Your task to perform on an android device: turn on the 12-hour format for clock Image 0: 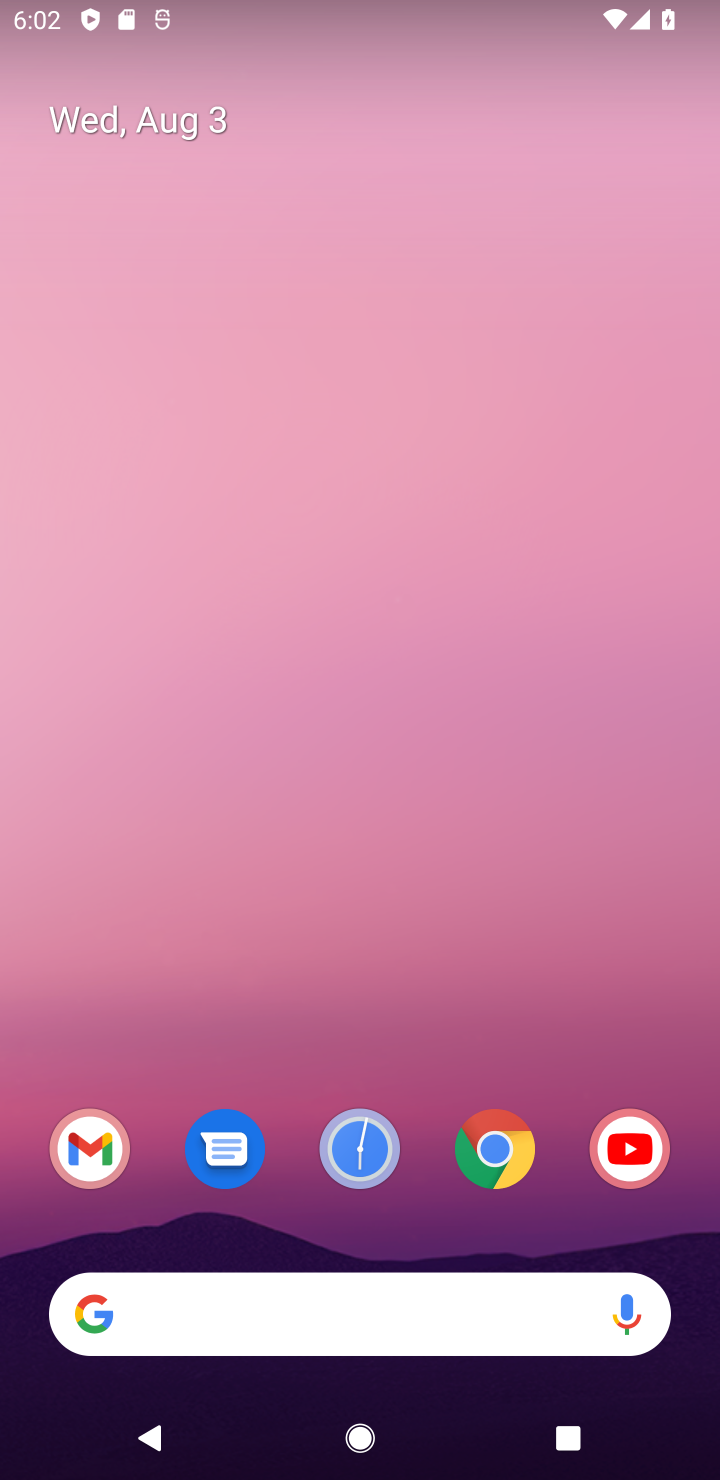
Step 0: drag from (388, 1349) to (348, 418)
Your task to perform on an android device: turn on the 12-hour format for clock Image 1: 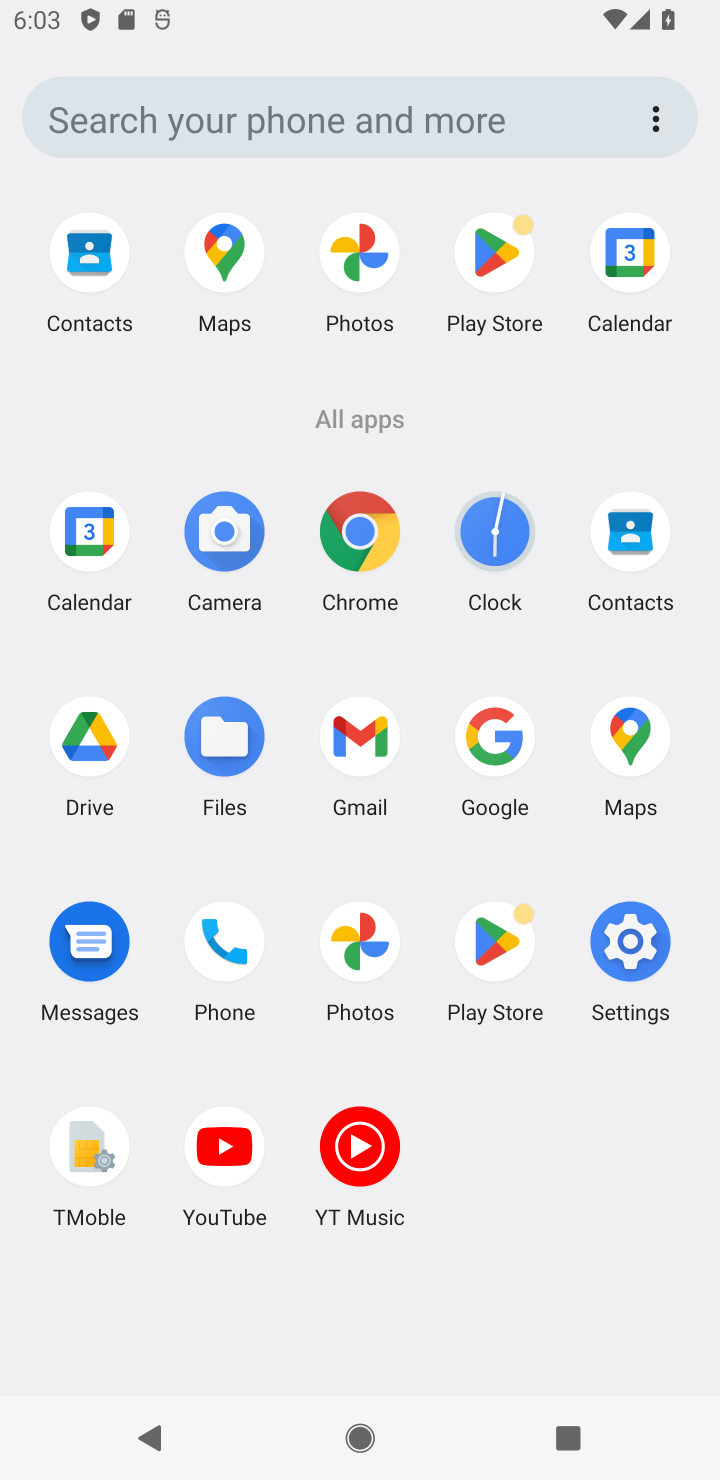
Step 1: click (590, 966)
Your task to perform on an android device: turn on the 12-hour format for clock Image 2: 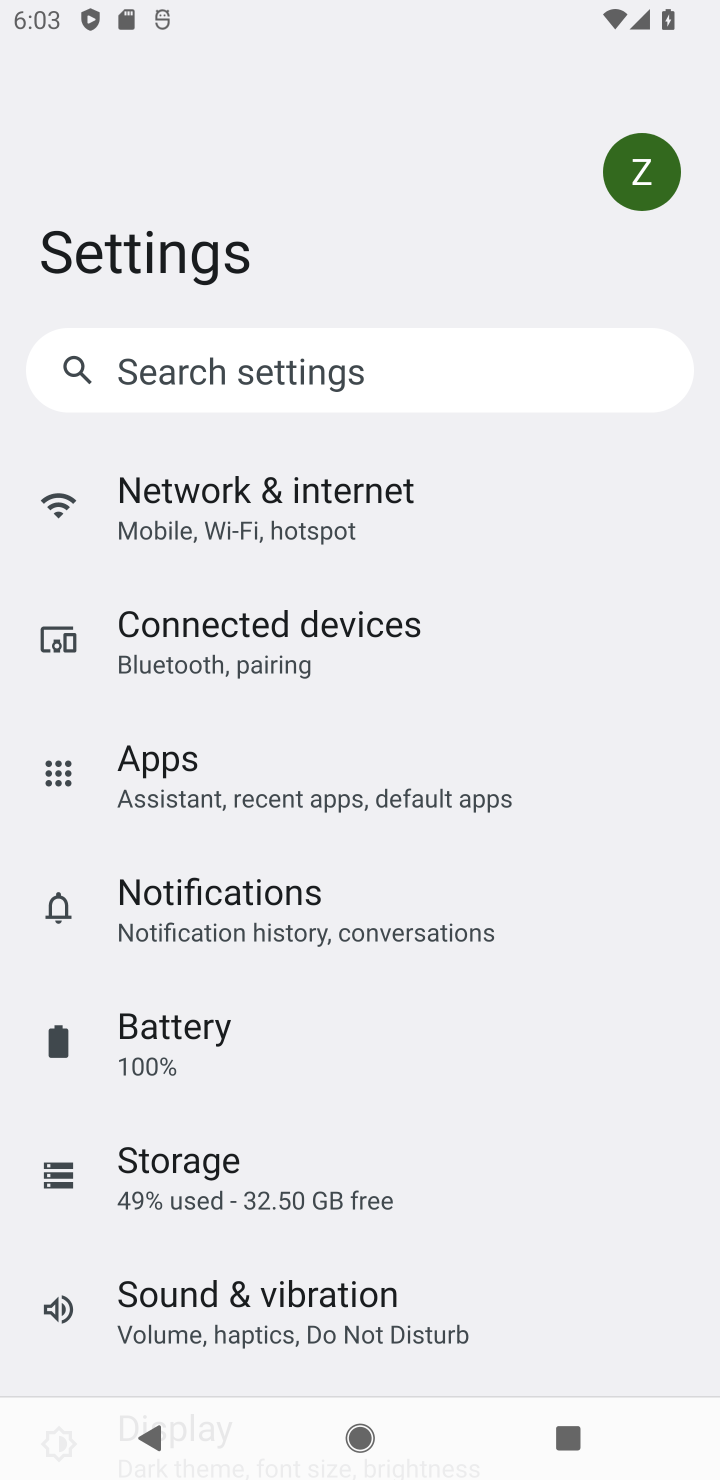
Step 2: drag from (297, 1339) to (323, 490)
Your task to perform on an android device: turn on the 12-hour format for clock Image 3: 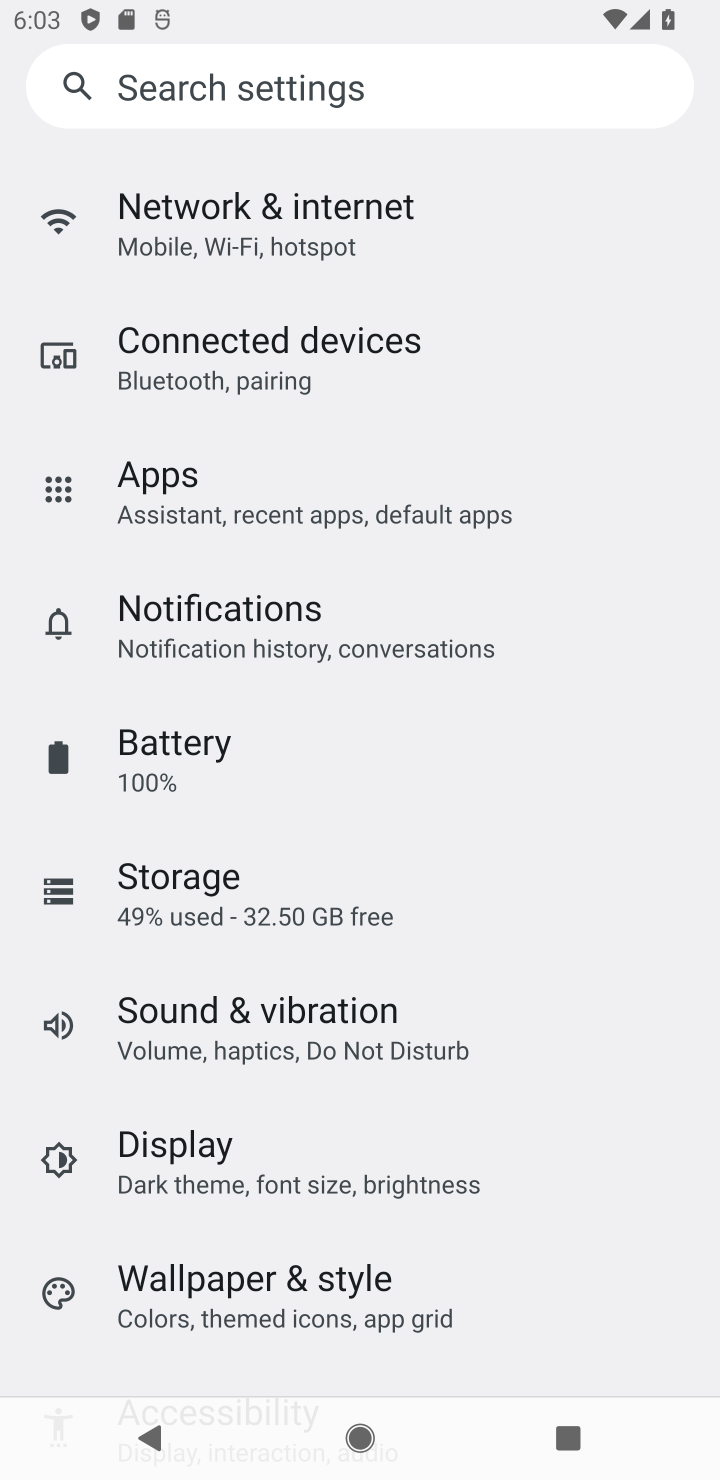
Step 3: drag from (270, 1334) to (257, 685)
Your task to perform on an android device: turn on the 12-hour format for clock Image 4: 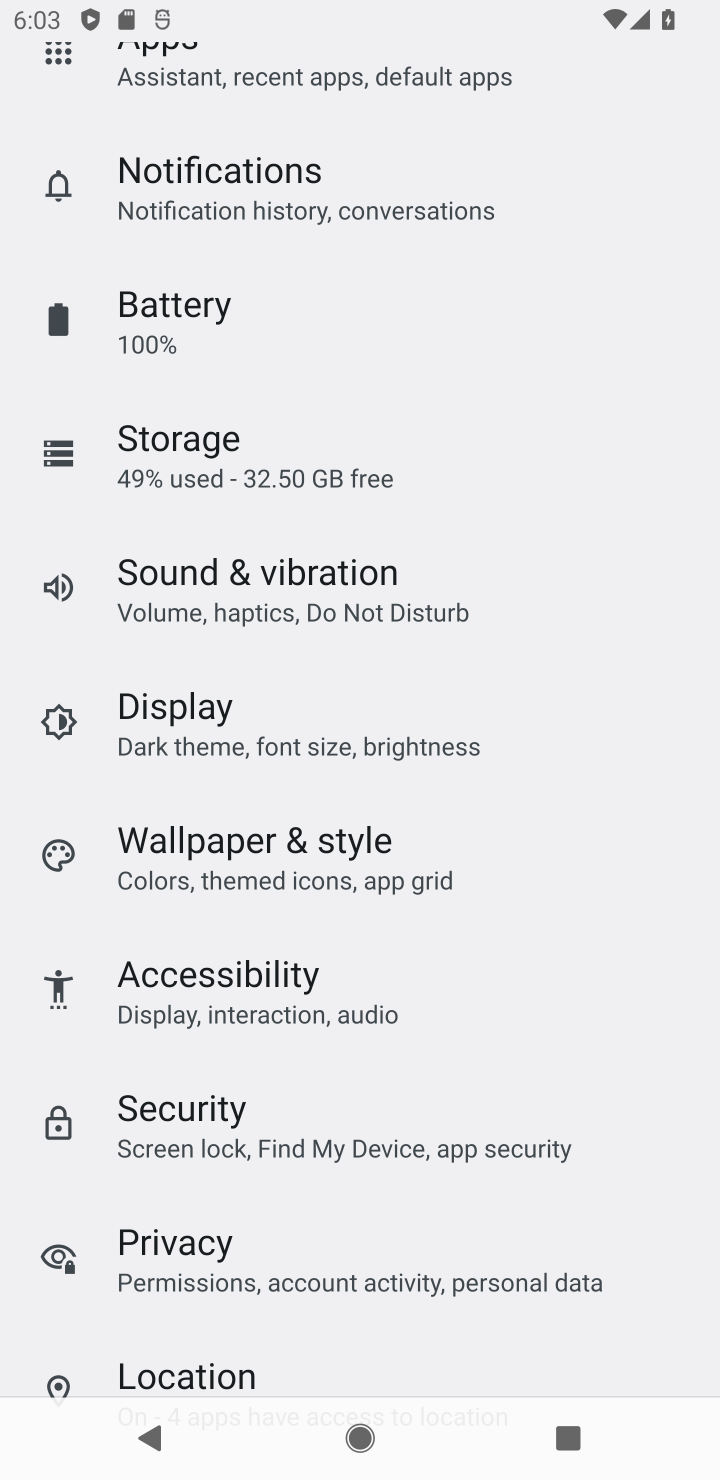
Step 4: drag from (358, 1269) to (376, 610)
Your task to perform on an android device: turn on the 12-hour format for clock Image 5: 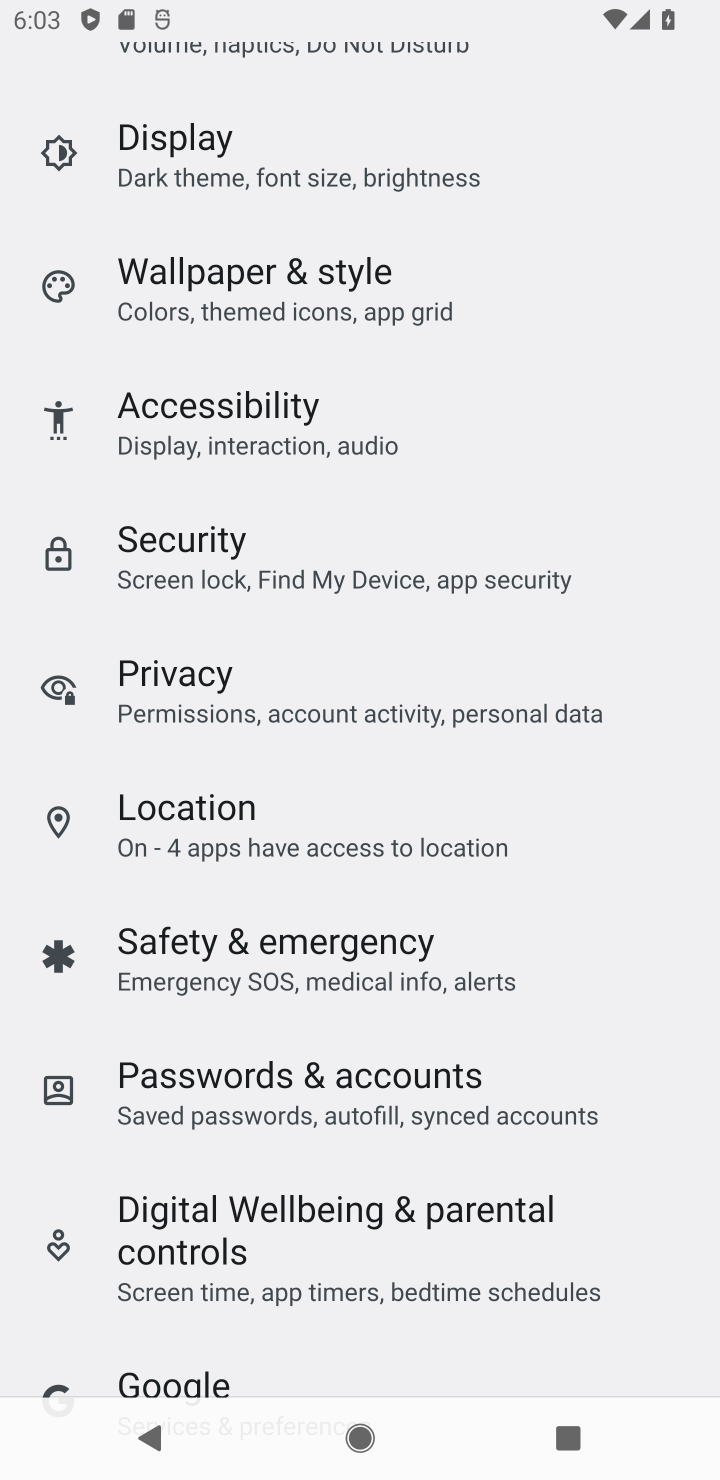
Step 5: drag from (365, 1275) to (356, 500)
Your task to perform on an android device: turn on the 12-hour format for clock Image 6: 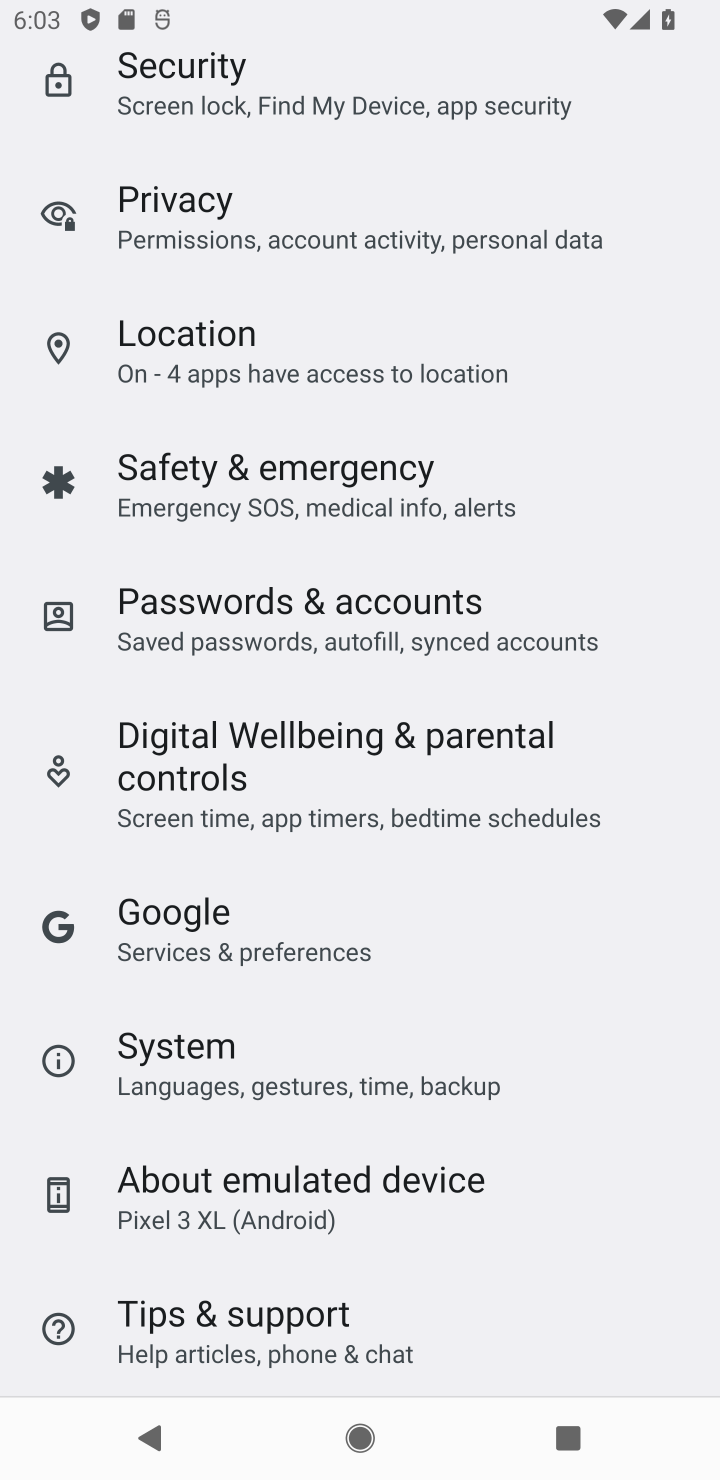
Step 6: drag from (358, 1204) to (397, 665)
Your task to perform on an android device: turn on the 12-hour format for clock Image 7: 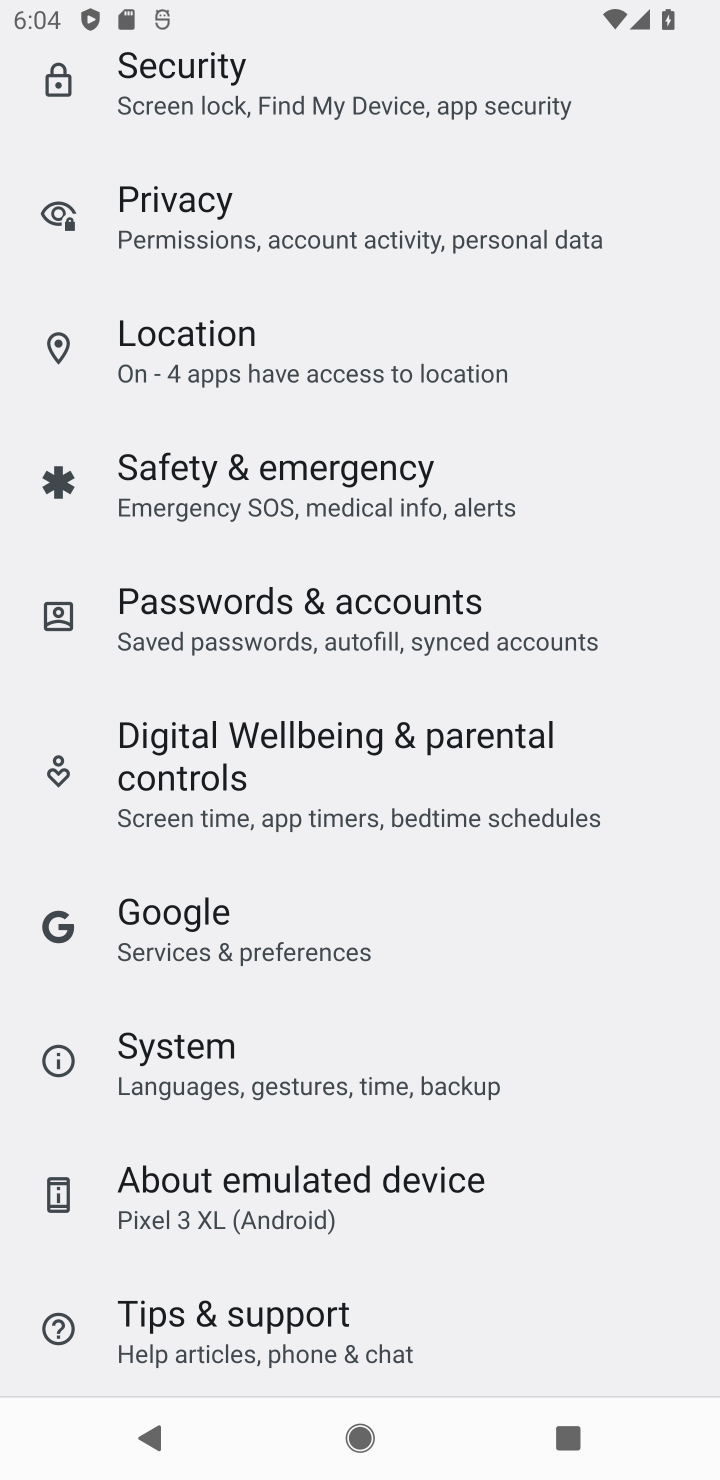
Step 7: click (324, 1069)
Your task to perform on an android device: turn on the 12-hour format for clock Image 8: 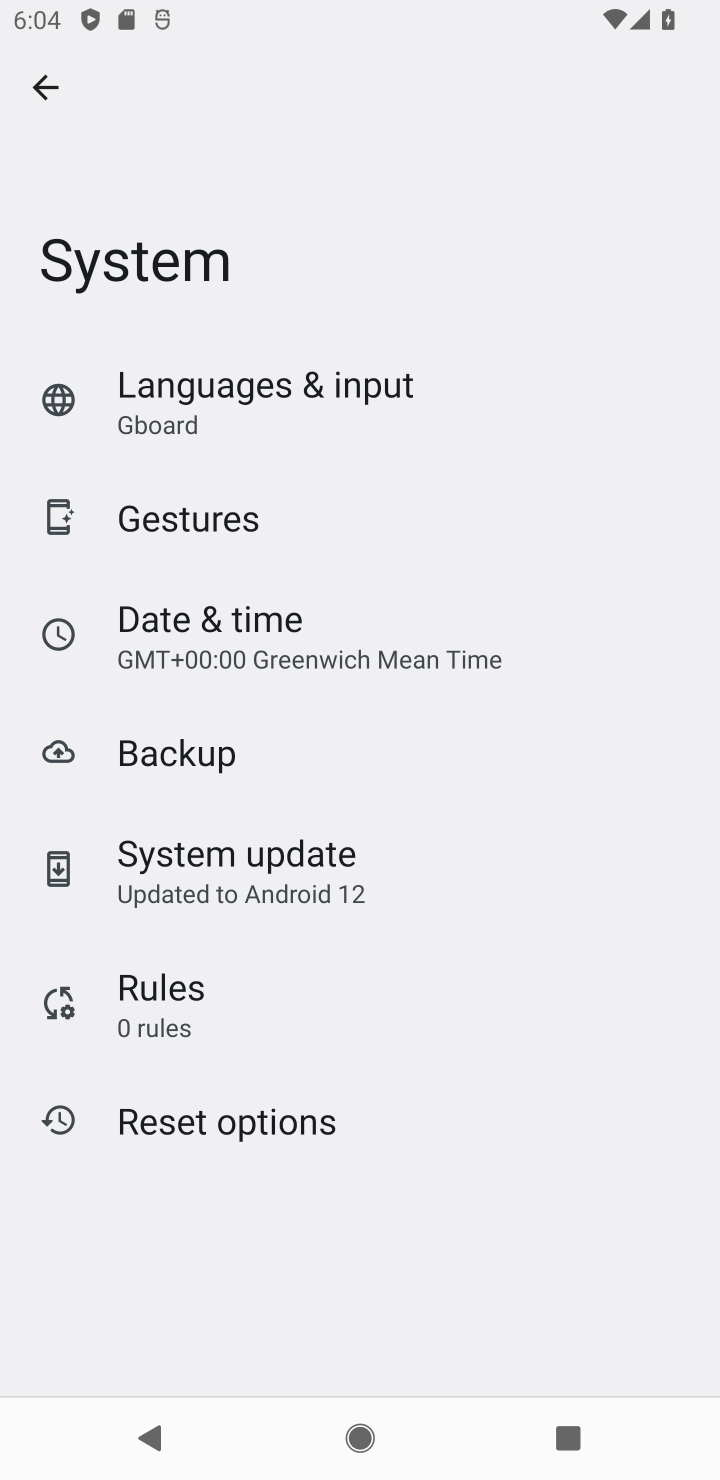
Step 8: click (275, 650)
Your task to perform on an android device: turn on the 12-hour format for clock Image 9: 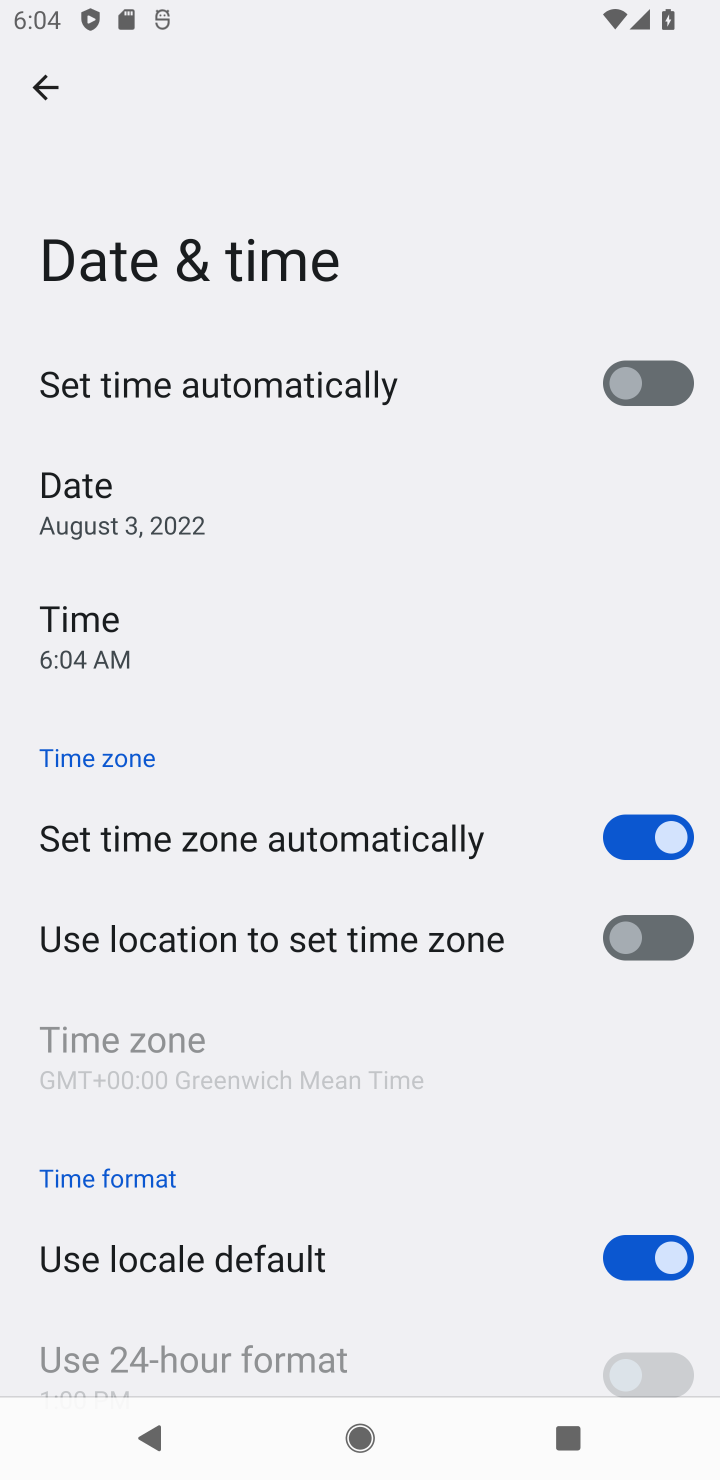
Step 9: task complete